Your task to perform on an android device: Open Google Maps and go to "Timeline" Image 0: 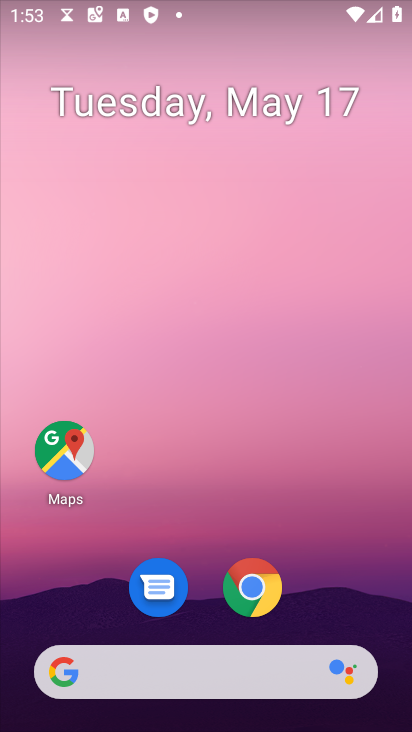
Step 0: drag from (211, 611) to (264, 0)
Your task to perform on an android device: Open Google Maps and go to "Timeline" Image 1: 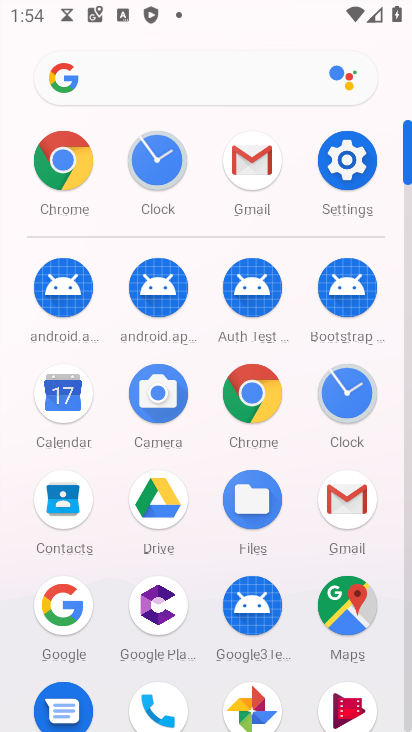
Step 1: click (348, 615)
Your task to perform on an android device: Open Google Maps and go to "Timeline" Image 2: 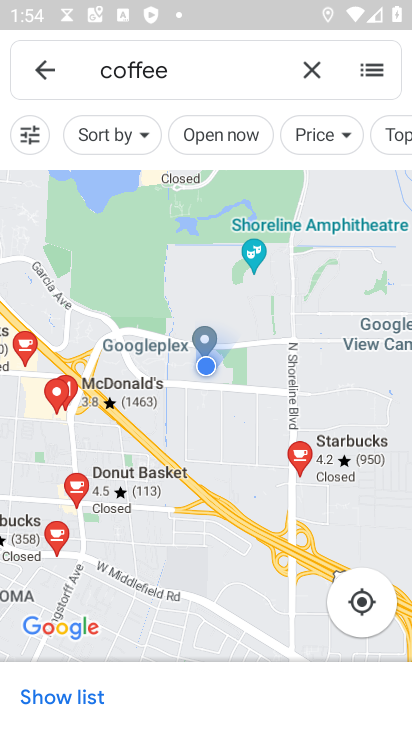
Step 2: click (51, 69)
Your task to perform on an android device: Open Google Maps and go to "Timeline" Image 3: 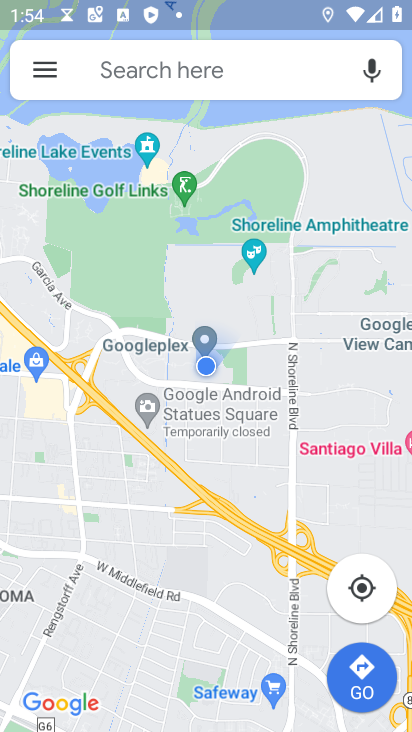
Step 3: click (44, 65)
Your task to perform on an android device: Open Google Maps and go to "Timeline" Image 4: 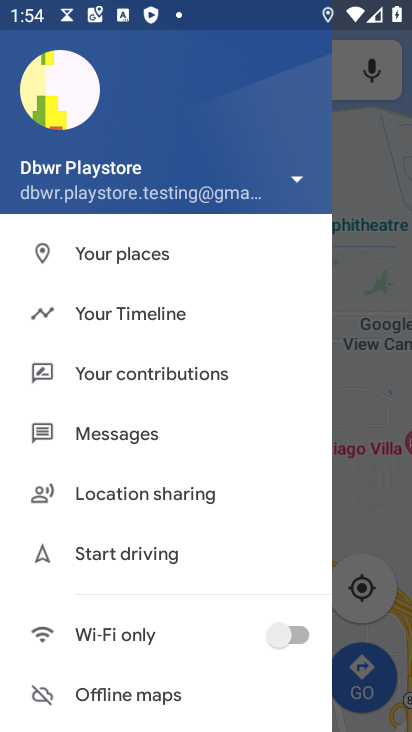
Step 4: click (140, 313)
Your task to perform on an android device: Open Google Maps and go to "Timeline" Image 5: 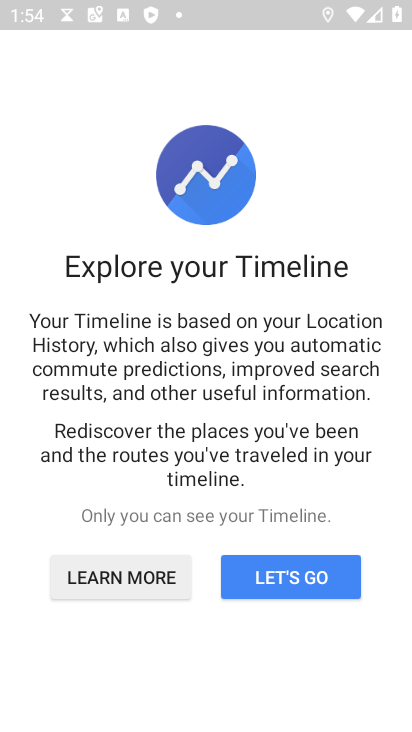
Step 5: click (273, 591)
Your task to perform on an android device: Open Google Maps and go to "Timeline" Image 6: 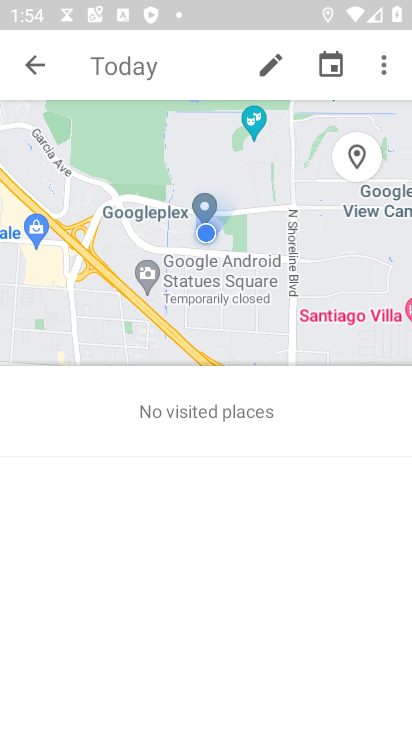
Step 6: task complete